Your task to perform on an android device: Open settings Image 0: 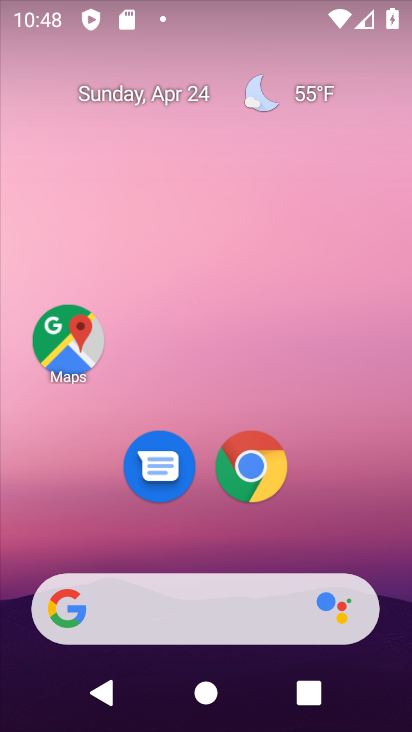
Step 0: drag from (362, 508) to (352, 2)
Your task to perform on an android device: Open settings Image 1: 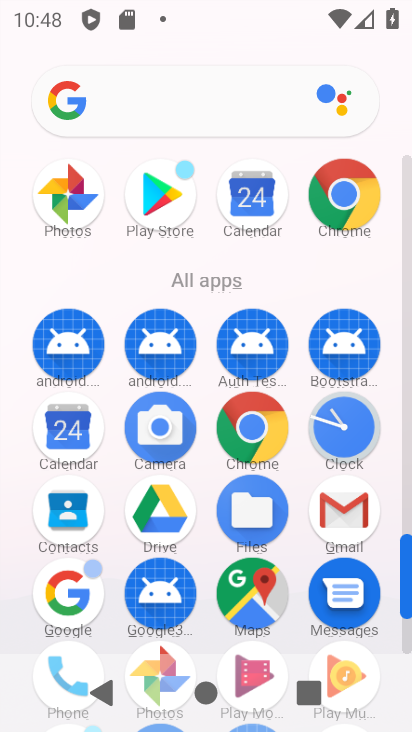
Step 1: drag from (404, 542) to (404, 479)
Your task to perform on an android device: Open settings Image 2: 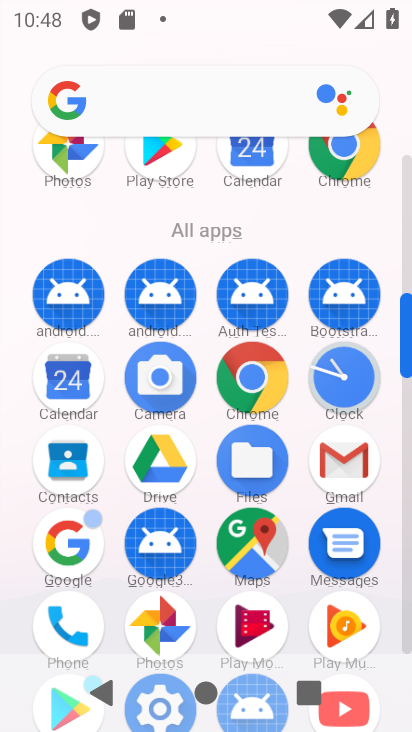
Step 2: drag from (408, 538) to (409, 471)
Your task to perform on an android device: Open settings Image 3: 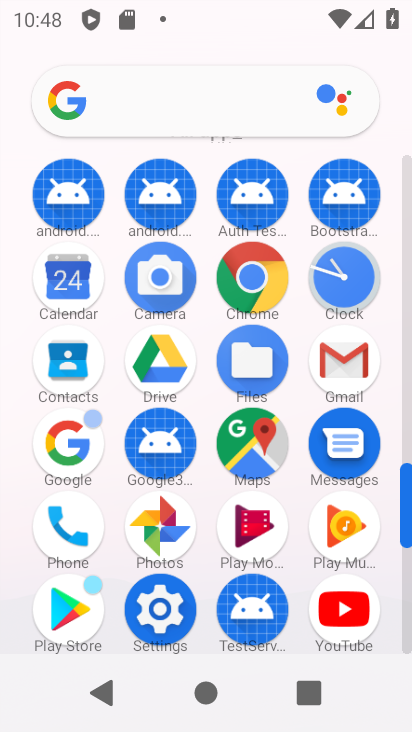
Step 3: click (157, 613)
Your task to perform on an android device: Open settings Image 4: 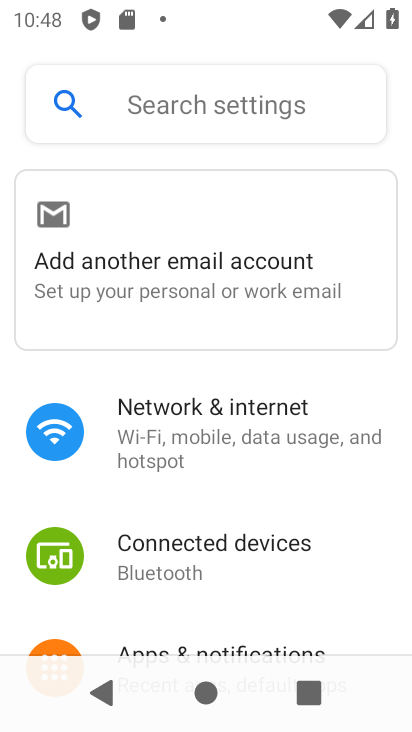
Step 4: task complete